Your task to perform on an android device: Open privacy settings Image 0: 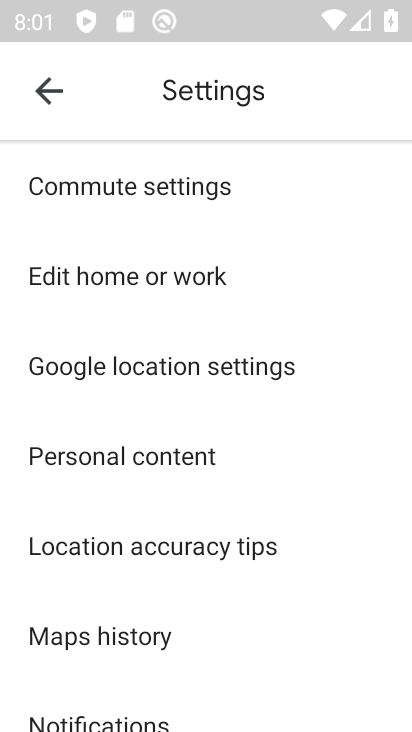
Step 0: press home button
Your task to perform on an android device: Open privacy settings Image 1: 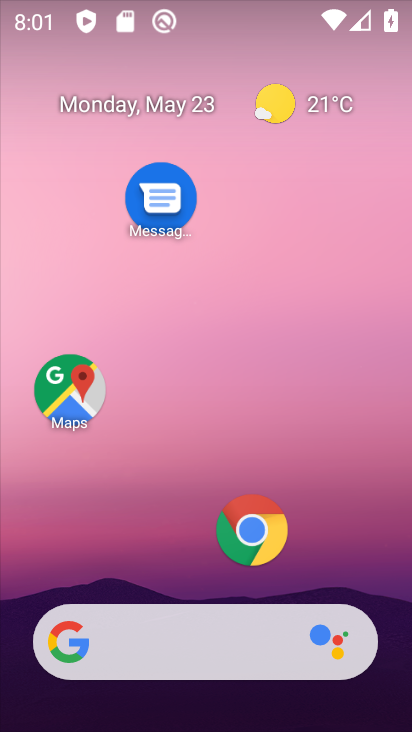
Step 1: drag from (162, 585) to (175, 133)
Your task to perform on an android device: Open privacy settings Image 2: 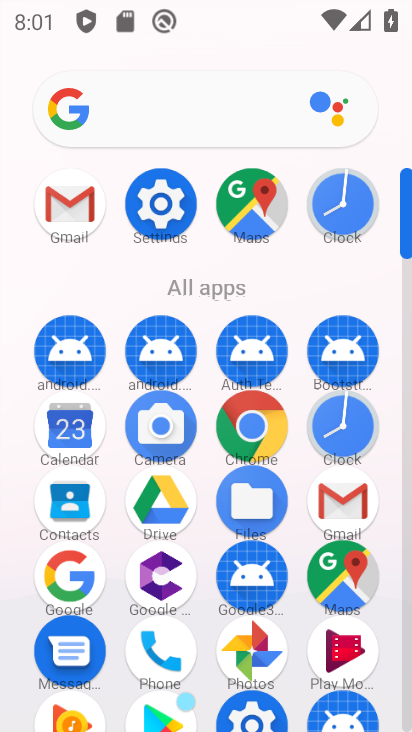
Step 2: click (164, 177)
Your task to perform on an android device: Open privacy settings Image 3: 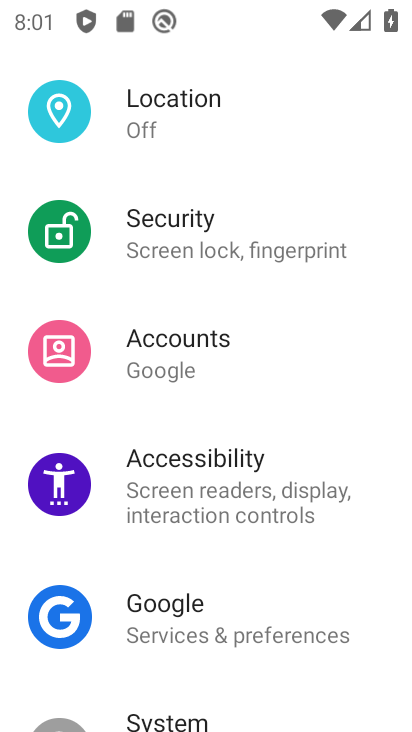
Step 3: drag from (99, 617) to (228, 76)
Your task to perform on an android device: Open privacy settings Image 4: 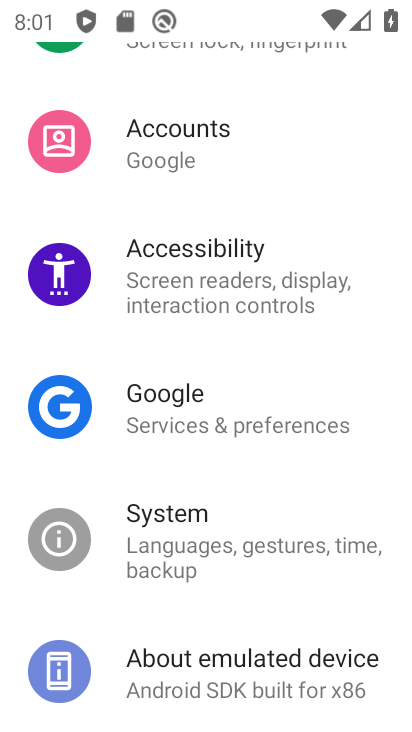
Step 4: drag from (115, 192) to (119, 679)
Your task to perform on an android device: Open privacy settings Image 5: 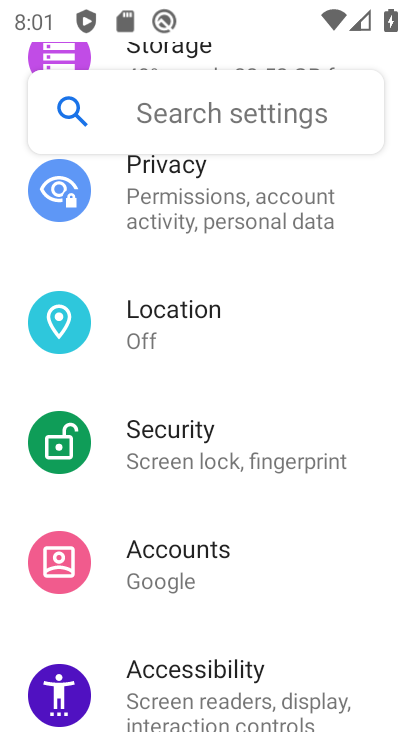
Step 5: click (132, 204)
Your task to perform on an android device: Open privacy settings Image 6: 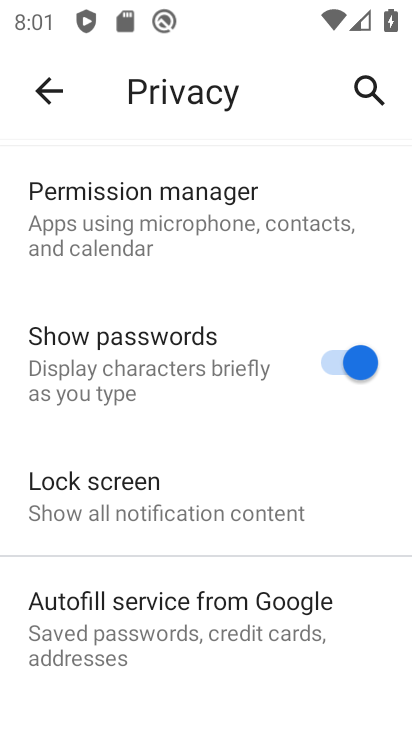
Step 6: task complete